Your task to perform on an android device: Do I have any events today? Image 0: 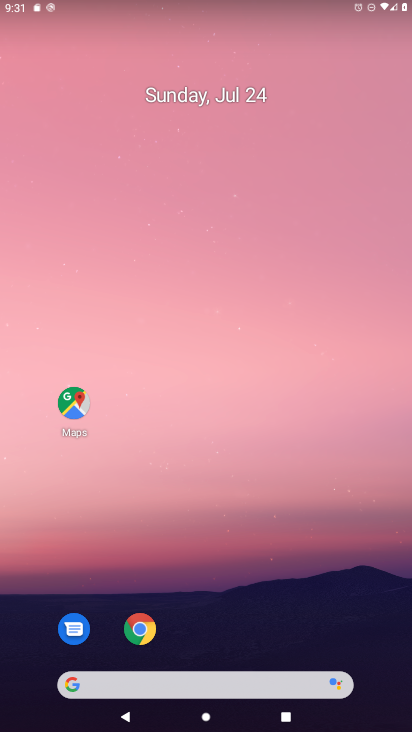
Step 0: drag from (153, 142) to (143, 215)
Your task to perform on an android device: Do I have any events today? Image 1: 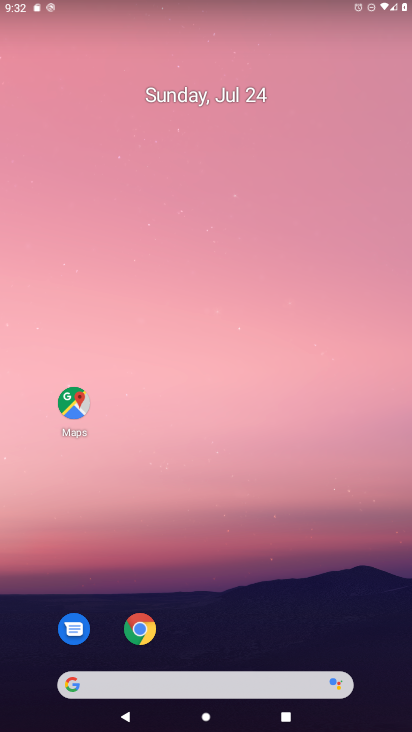
Step 1: drag from (328, 617) to (171, 7)
Your task to perform on an android device: Do I have any events today? Image 2: 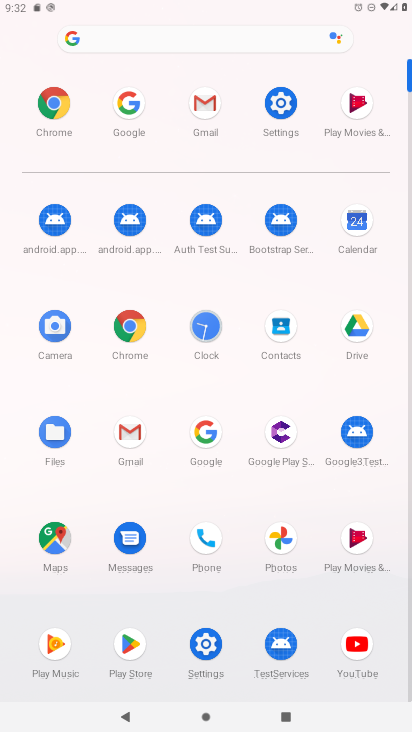
Step 2: click (345, 236)
Your task to perform on an android device: Do I have any events today? Image 3: 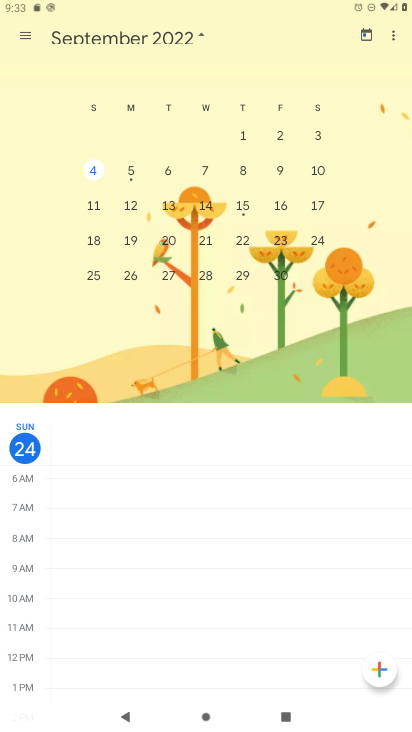
Step 3: task complete